Your task to perform on an android device: Search for flights from Buenos aires to Seoul Image 0: 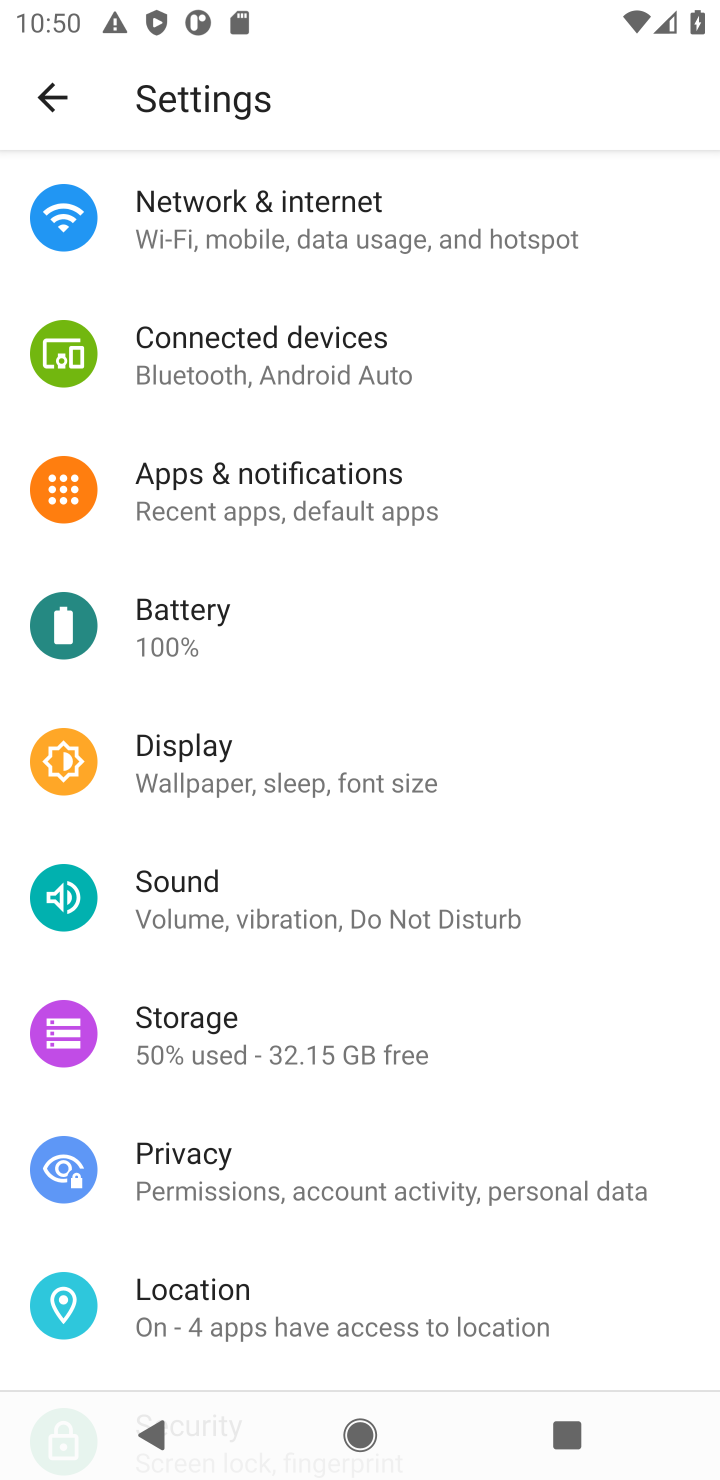
Step 0: press home button
Your task to perform on an android device: Search for flights from Buenos aires to Seoul Image 1: 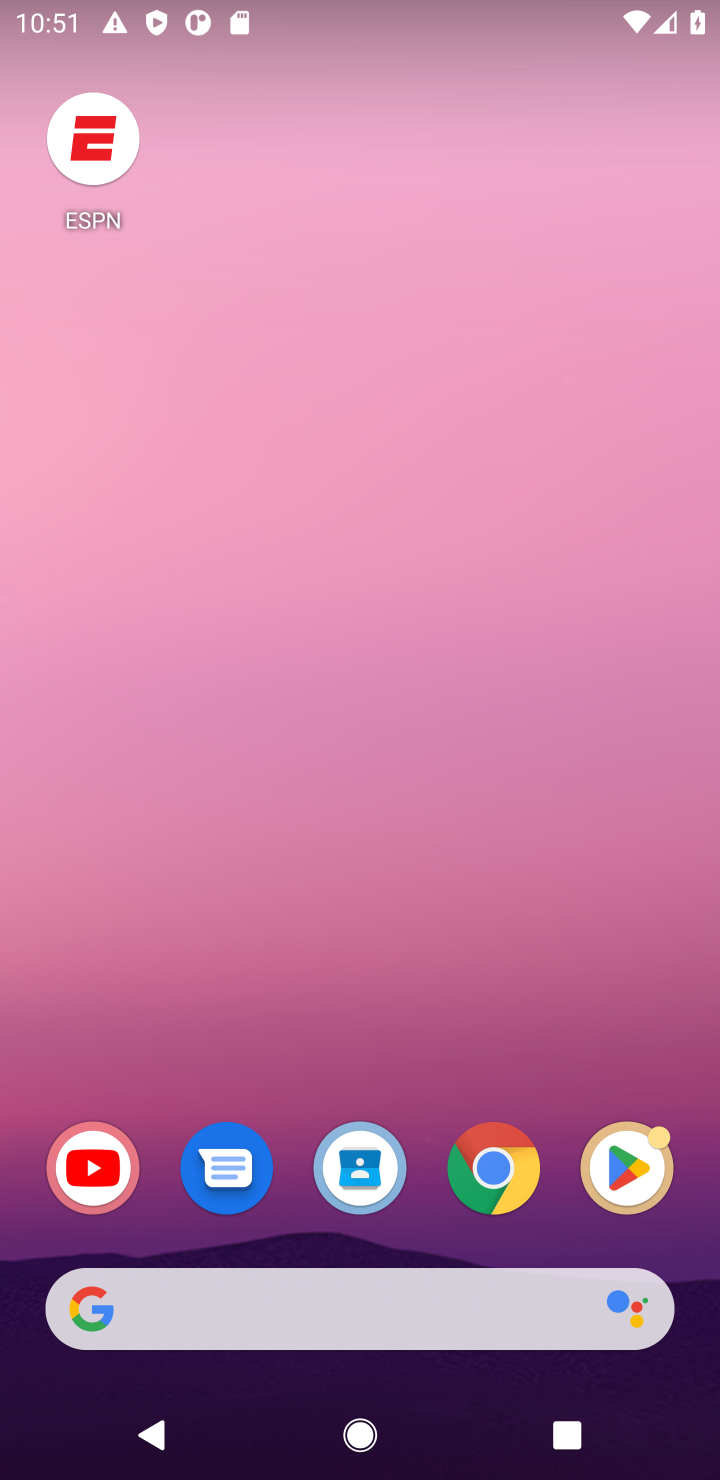
Step 1: click (333, 1283)
Your task to perform on an android device: Search for flights from Buenos aires to Seoul Image 2: 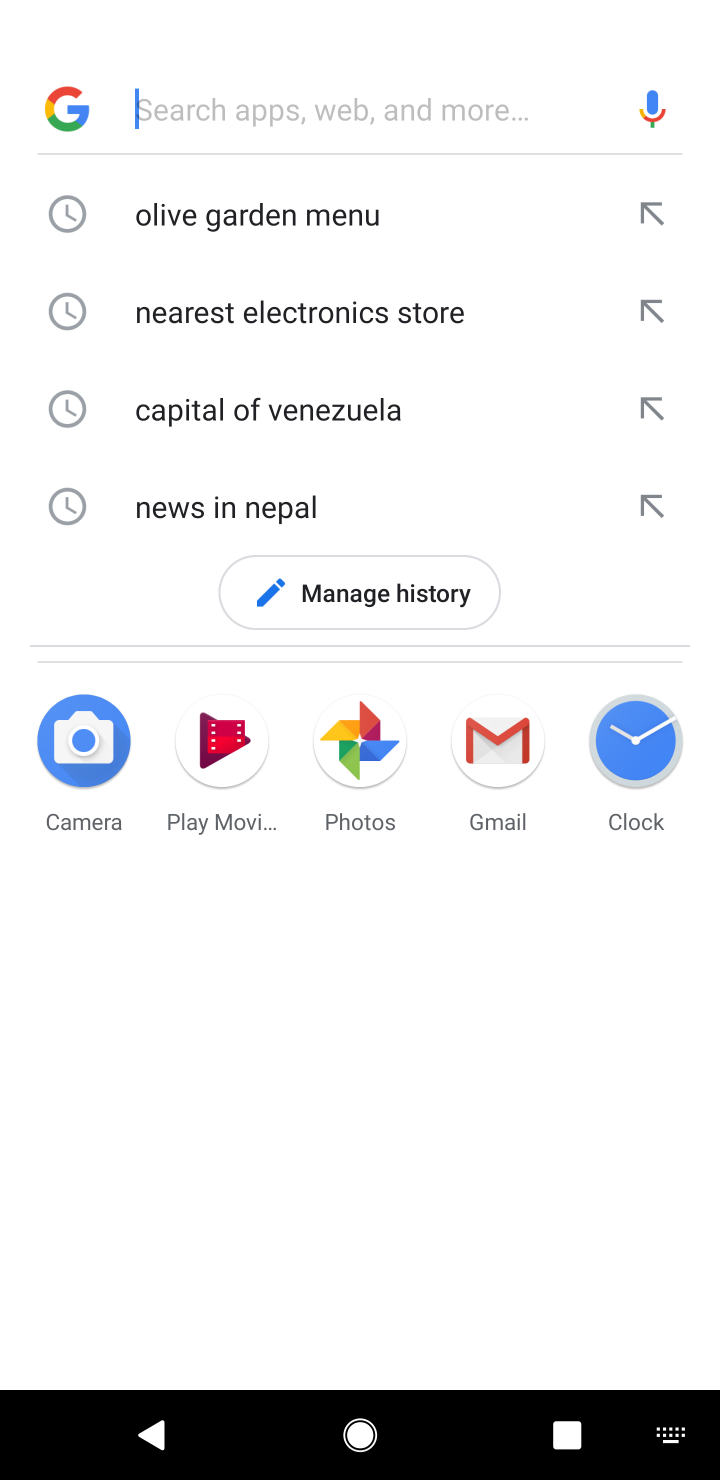
Step 2: type "flights from Buenos aires to Seoul"
Your task to perform on an android device: Search for flights from Buenos aires to Seoul Image 3: 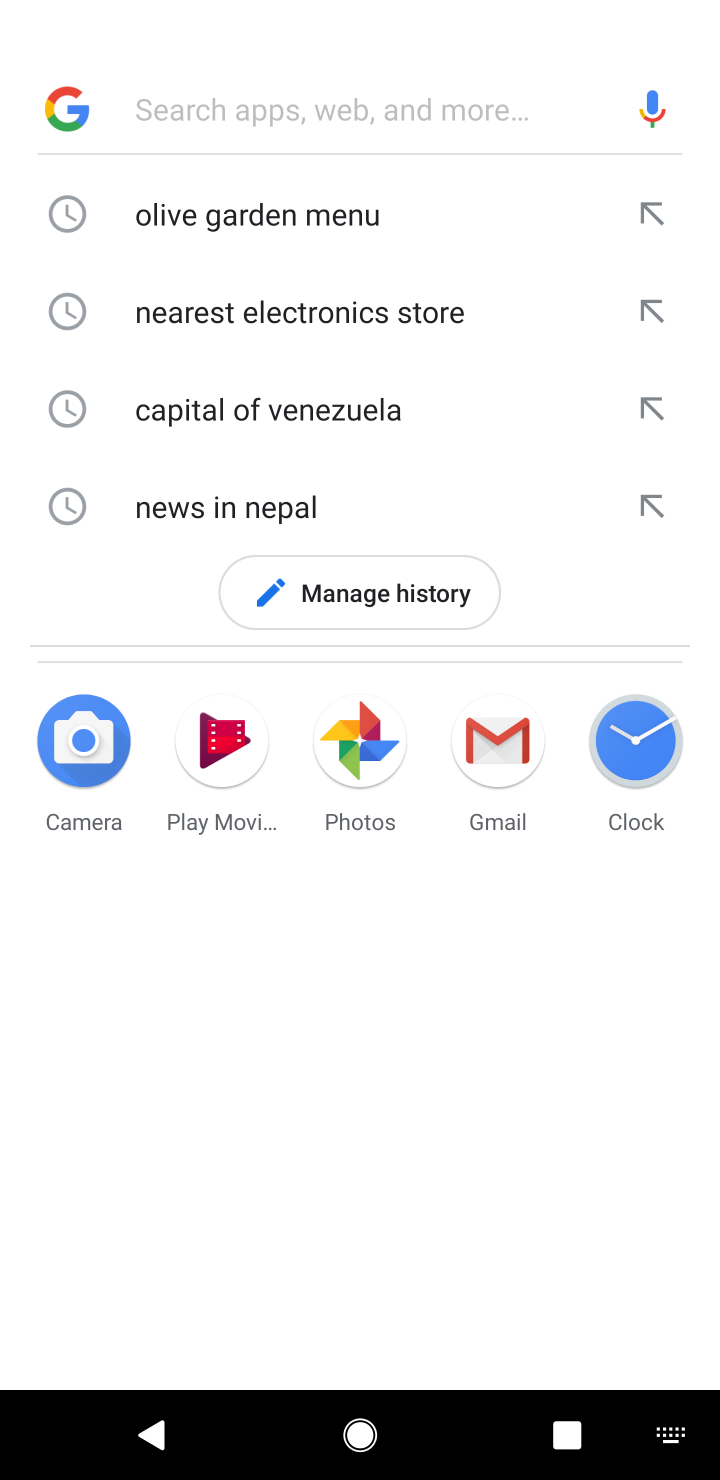
Step 3: click (333, 115)
Your task to perform on an android device: Search for flights from Buenos aires to Seoul Image 4: 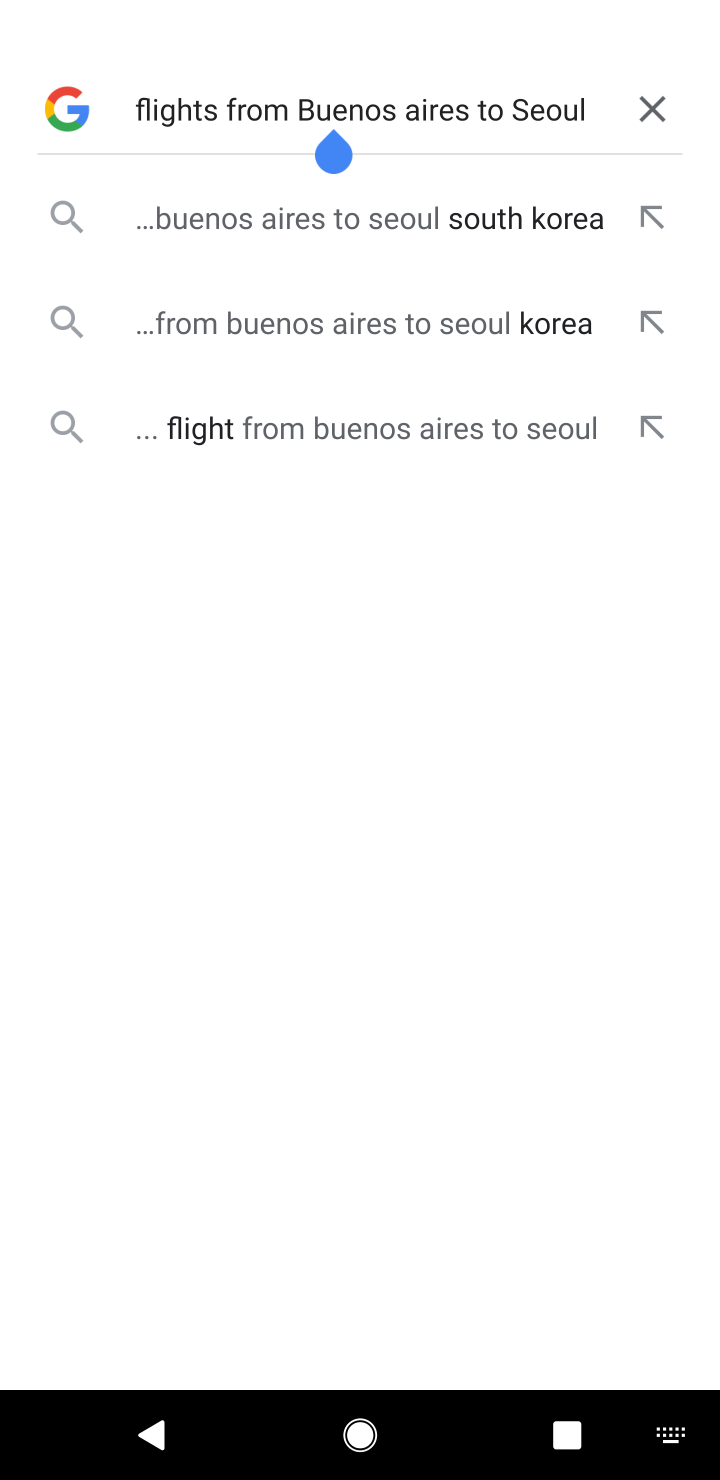
Step 4: click (481, 208)
Your task to perform on an android device: Search for flights from Buenos aires to Seoul Image 5: 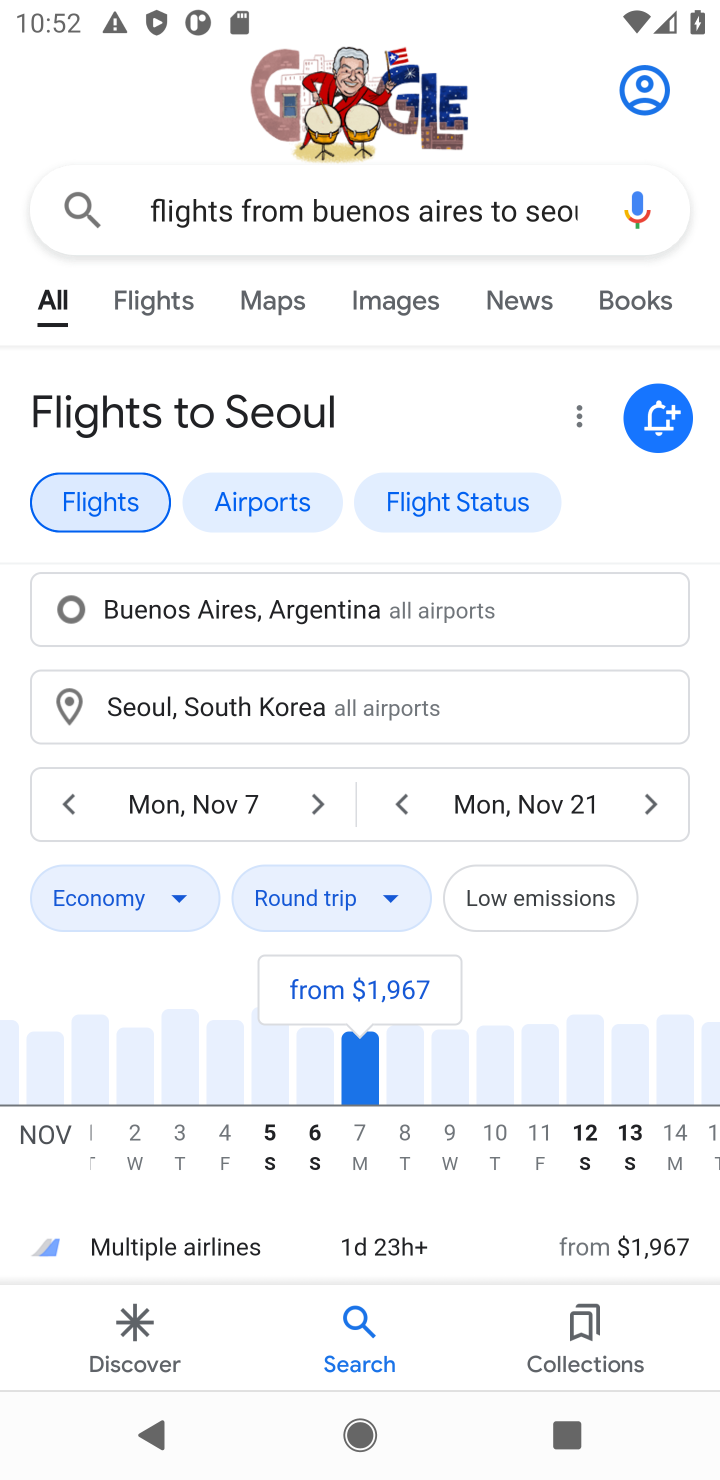
Step 5: task complete